Your task to perform on an android device: Open display settings Image 0: 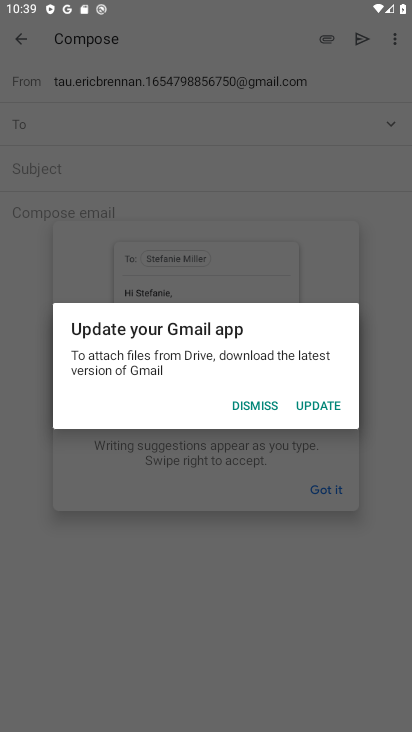
Step 0: press home button
Your task to perform on an android device: Open display settings Image 1: 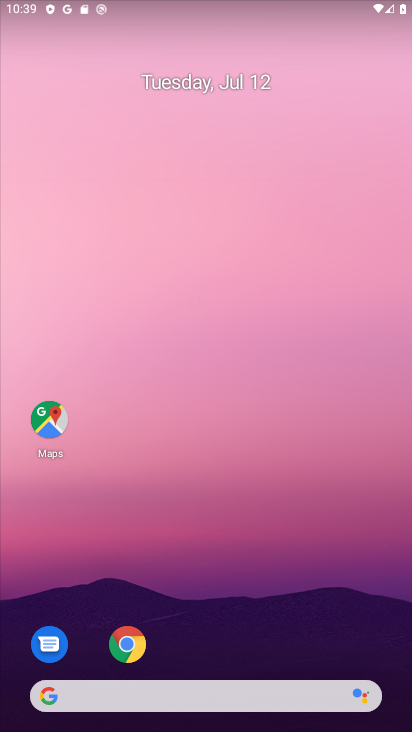
Step 1: drag from (251, 654) to (330, 206)
Your task to perform on an android device: Open display settings Image 2: 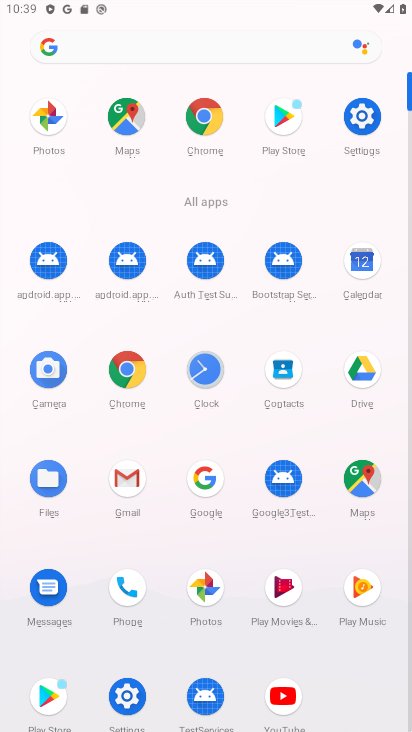
Step 2: click (127, 703)
Your task to perform on an android device: Open display settings Image 3: 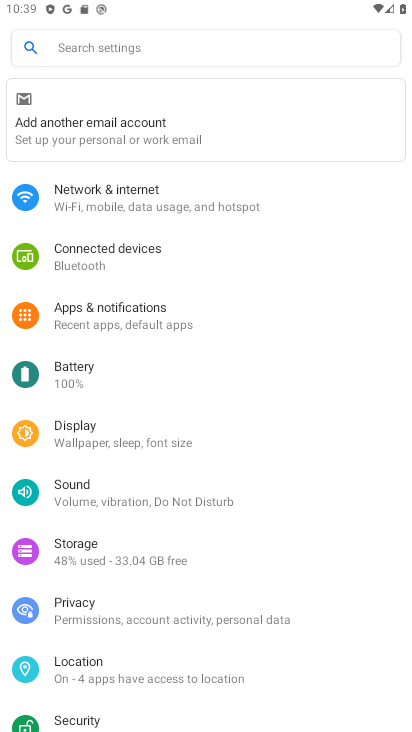
Step 3: click (97, 441)
Your task to perform on an android device: Open display settings Image 4: 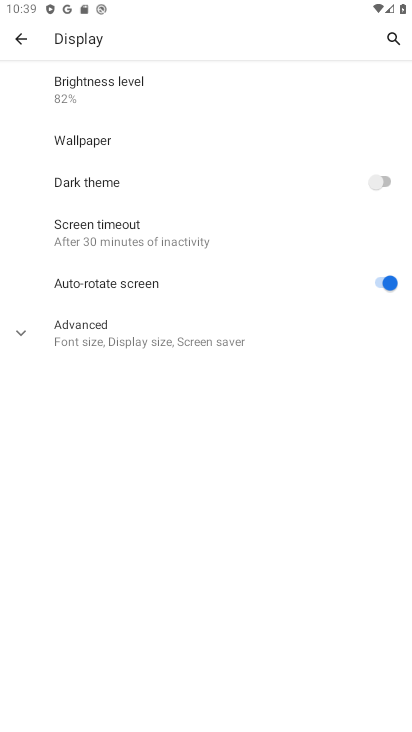
Step 4: task complete